Your task to perform on an android device: Open Google Maps and go to "Timeline" Image 0: 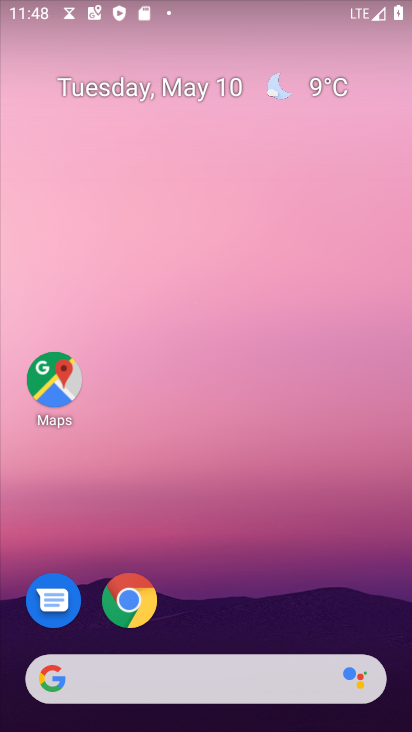
Step 0: click (55, 380)
Your task to perform on an android device: Open Google Maps and go to "Timeline" Image 1: 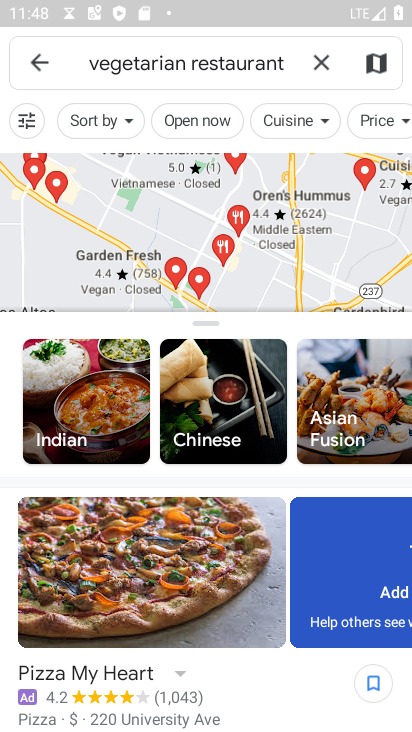
Step 1: click (317, 61)
Your task to perform on an android device: Open Google Maps and go to "Timeline" Image 2: 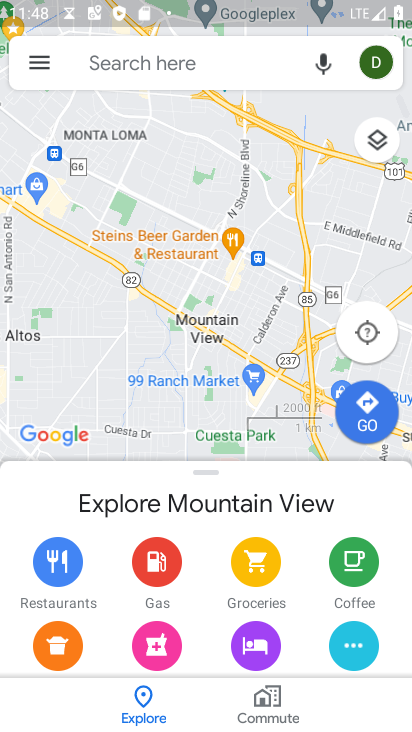
Step 2: click (39, 69)
Your task to perform on an android device: Open Google Maps and go to "Timeline" Image 3: 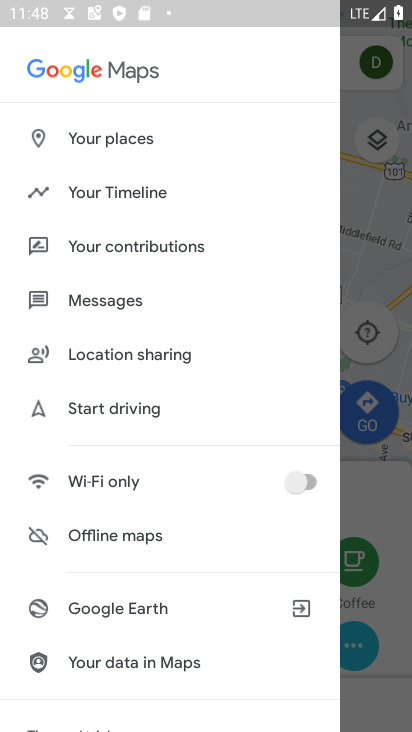
Step 3: click (120, 192)
Your task to perform on an android device: Open Google Maps and go to "Timeline" Image 4: 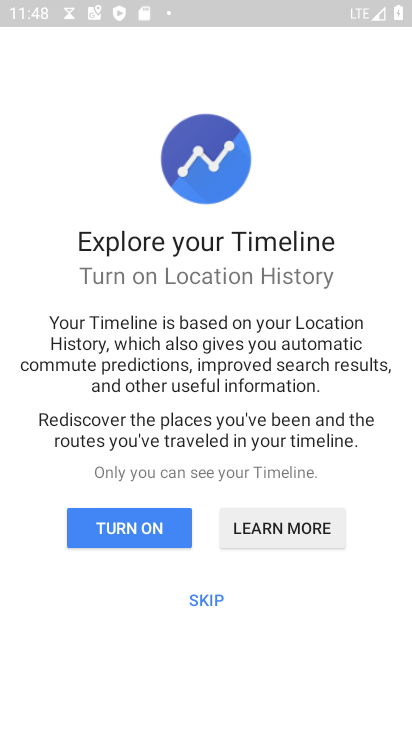
Step 4: click (153, 533)
Your task to perform on an android device: Open Google Maps and go to "Timeline" Image 5: 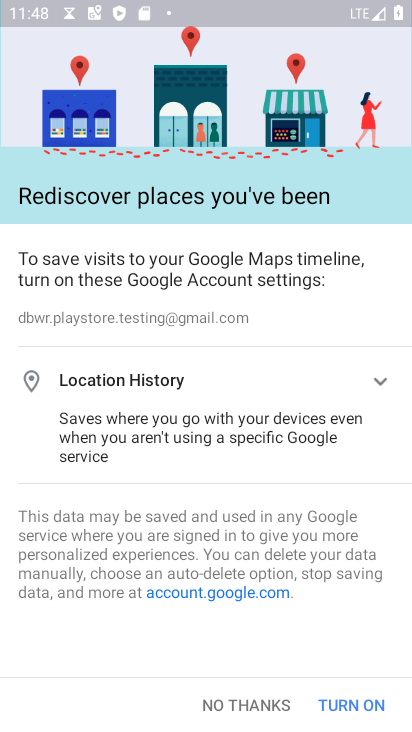
Step 5: click (256, 697)
Your task to perform on an android device: Open Google Maps and go to "Timeline" Image 6: 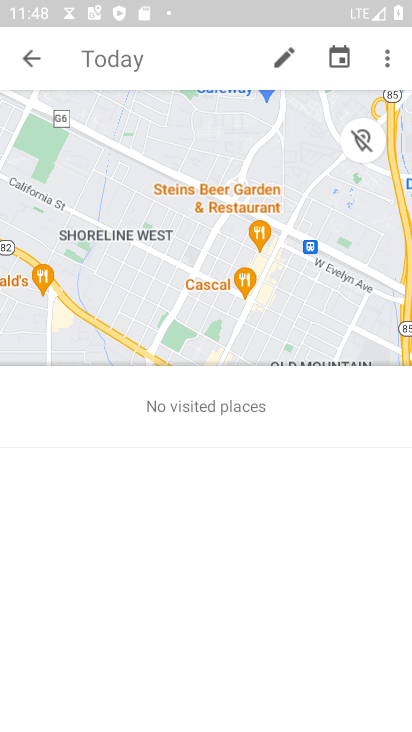
Step 6: task complete